Your task to perform on an android device: Find coffee shops on Maps Image 0: 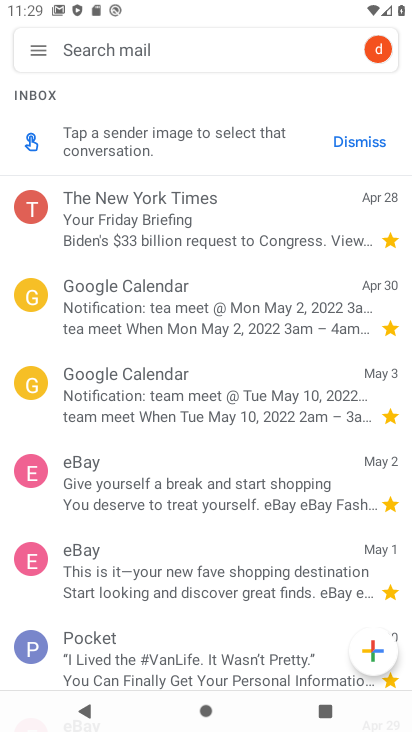
Step 0: press home button
Your task to perform on an android device: Find coffee shops on Maps Image 1: 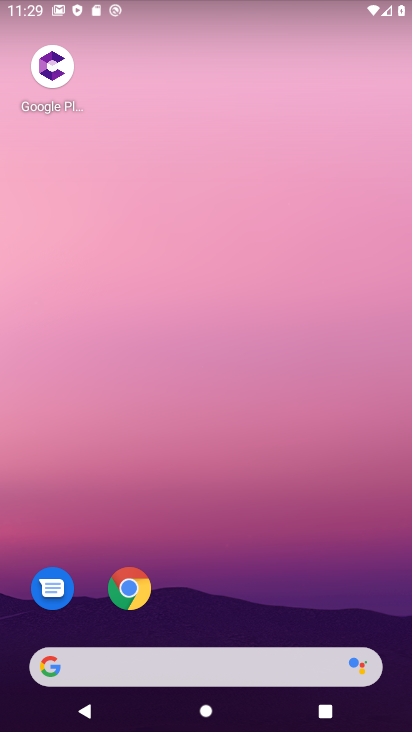
Step 1: drag from (182, 601) to (307, 105)
Your task to perform on an android device: Find coffee shops on Maps Image 2: 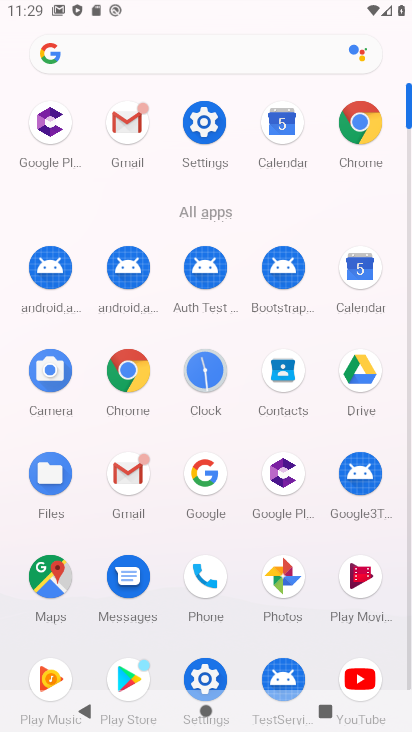
Step 2: click (46, 581)
Your task to perform on an android device: Find coffee shops on Maps Image 3: 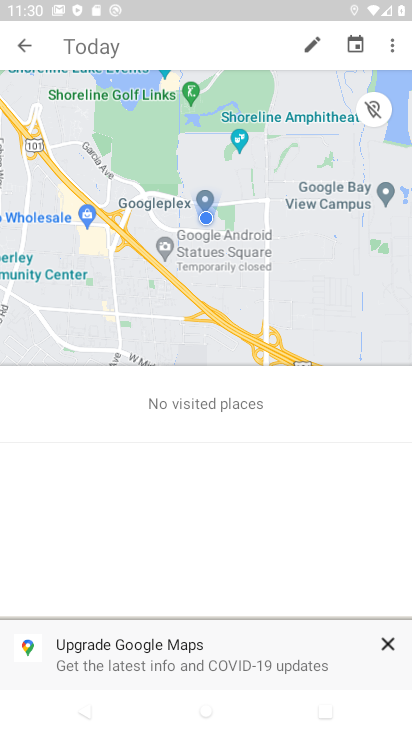
Step 3: click (25, 44)
Your task to perform on an android device: Find coffee shops on Maps Image 4: 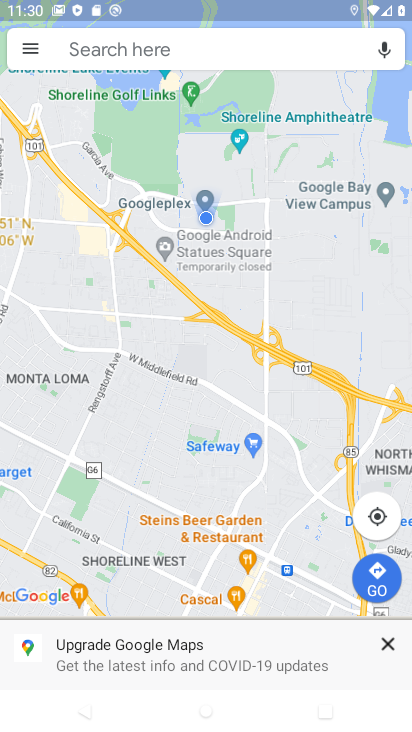
Step 4: click (139, 44)
Your task to perform on an android device: Find coffee shops on Maps Image 5: 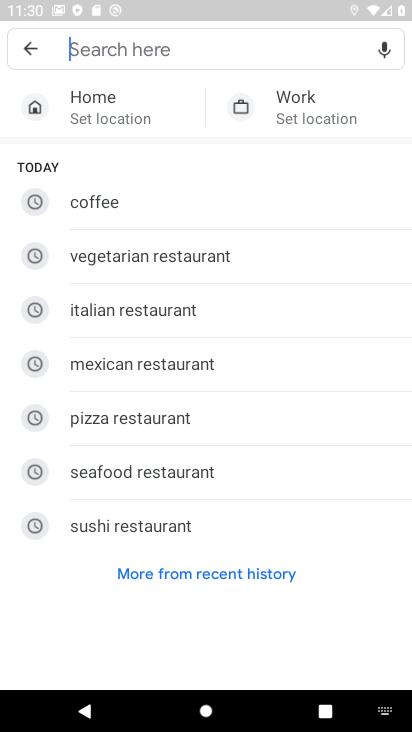
Step 5: click (100, 204)
Your task to perform on an android device: Find coffee shops on Maps Image 6: 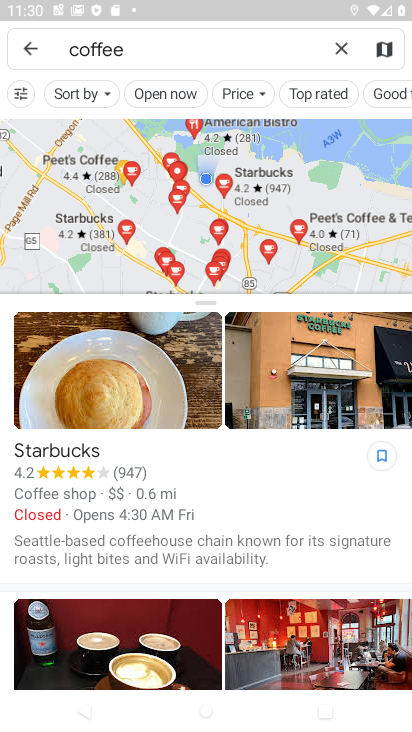
Step 6: task complete